Your task to perform on an android device: Open Google Maps Image 0: 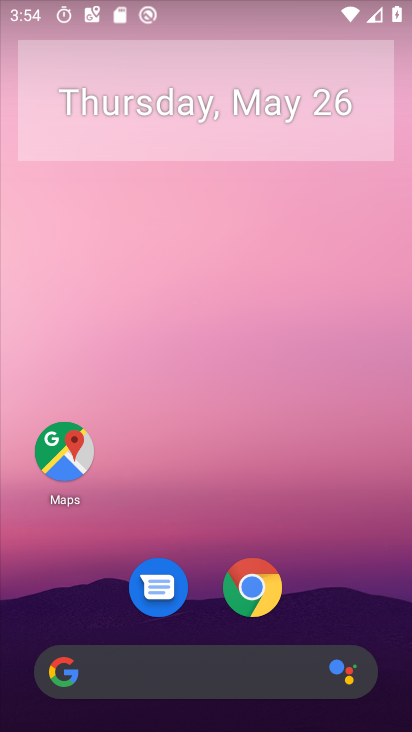
Step 0: click (173, 137)
Your task to perform on an android device: Open Google Maps Image 1: 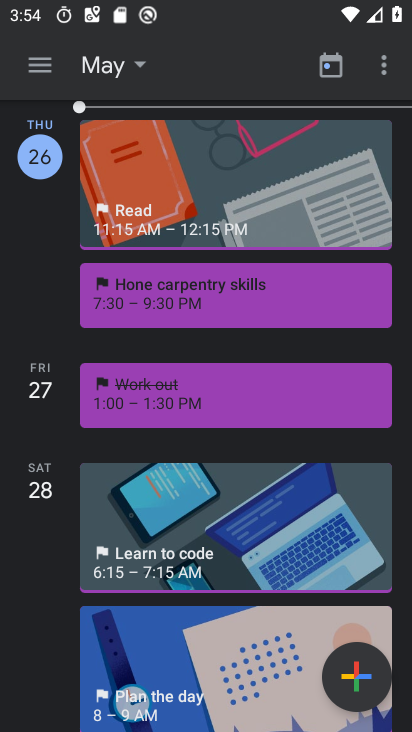
Step 1: task complete